Your task to perform on an android device: toggle notifications settings in the gmail app Image 0: 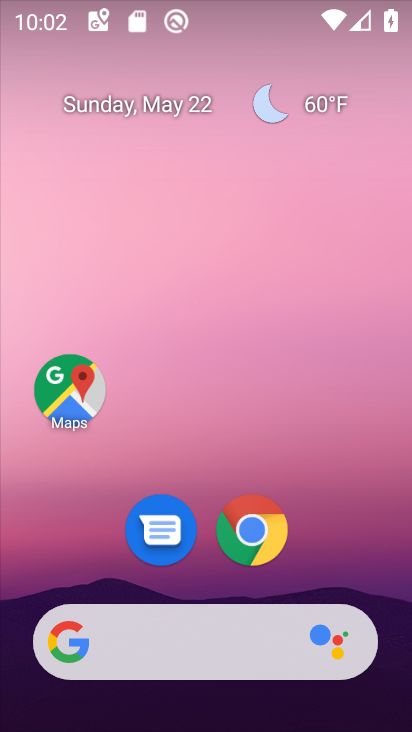
Step 0: drag from (386, 692) to (275, 149)
Your task to perform on an android device: toggle notifications settings in the gmail app Image 1: 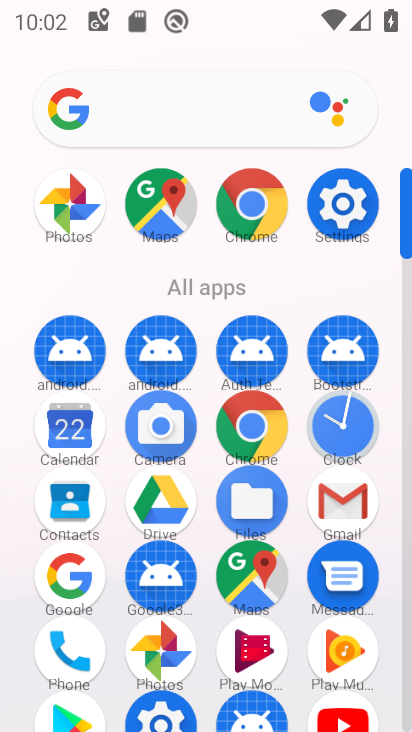
Step 1: click (344, 504)
Your task to perform on an android device: toggle notifications settings in the gmail app Image 2: 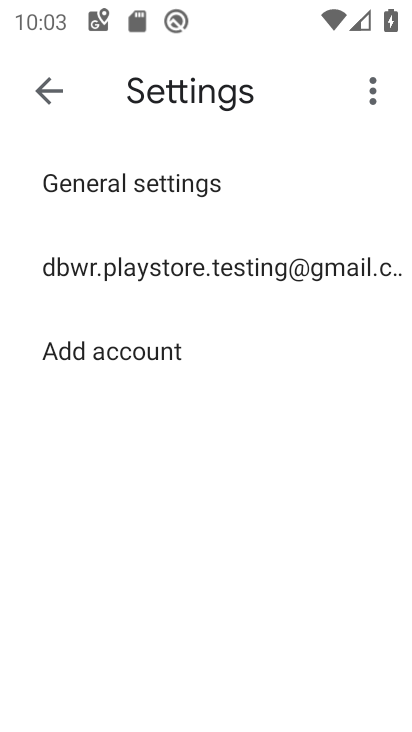
Step 2: click (155, 189)
Your task to perform on an android device: toggle notifications settings in the gmail app Image 3: 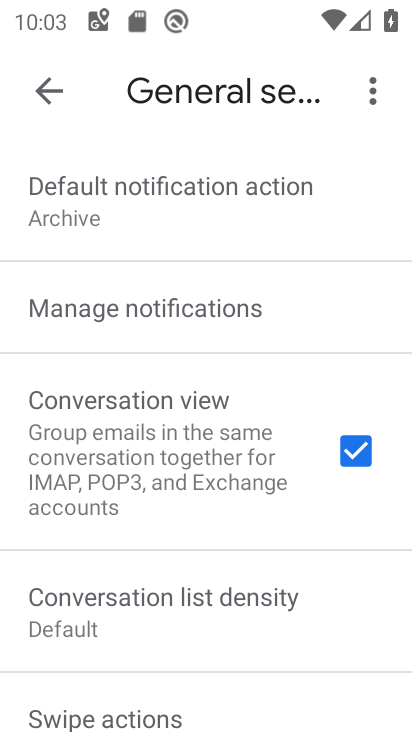
Step 3: click (164, 313)
Your task to perform on an android device: toggle notifications settings in the gmail app Image 4: 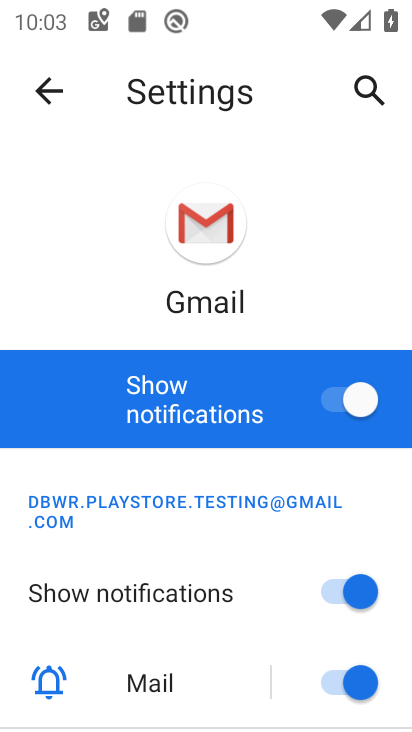
Step 4: click (334, 406)
Your task to perform on an android device: toggle notifications settings in the gmail app Image 5: 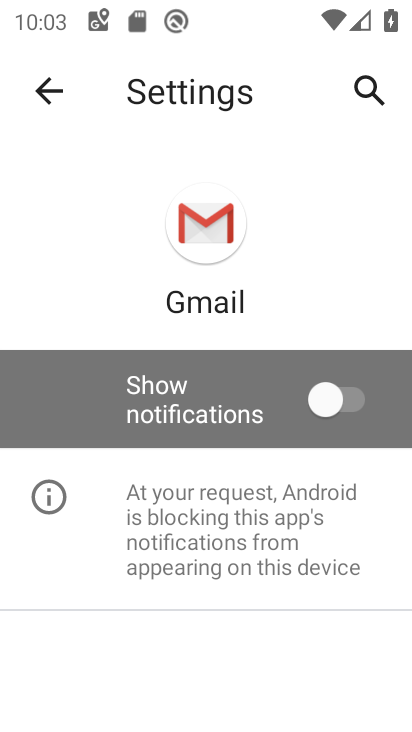
Step 5: task complete